Your task to perform on an android device: set the timer Image 0: 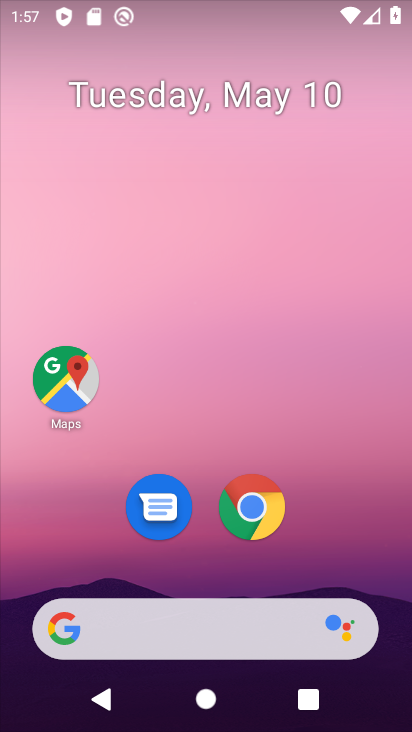
Step 0: drag from (356, 571) to (189, 84)
Your task to perform on an android device: set the timer Image 1: 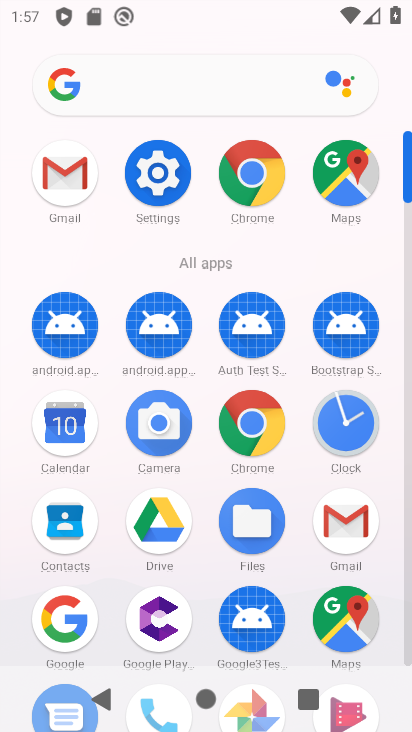
Step 1: click (341, 408)
Your task to perform on an android device: set the timer Image 2: 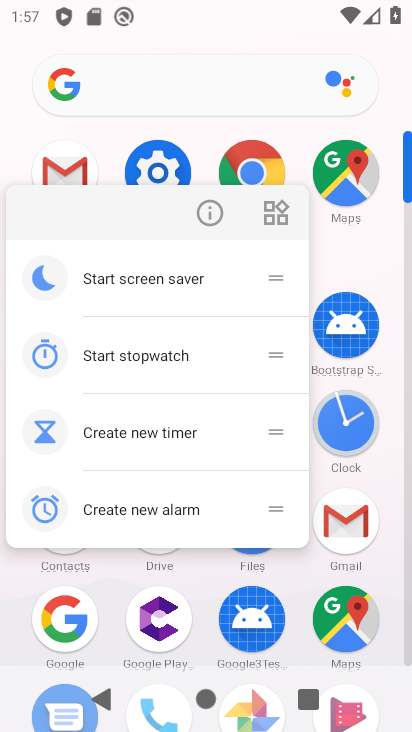
Step 2: click (341, 420)
Your task to perform on an android device: set the timer Image 3: 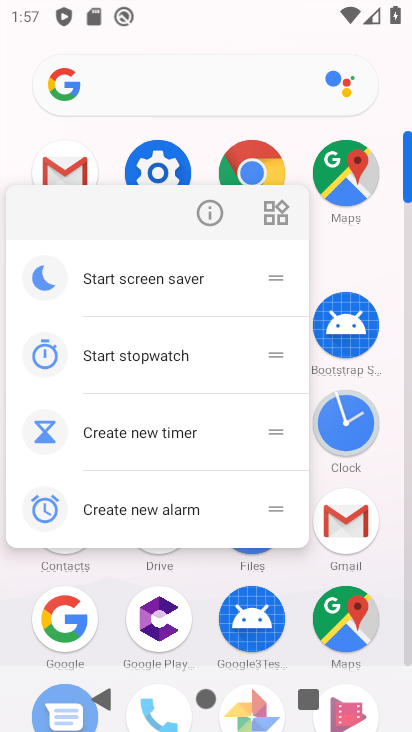
Step 3: click (340, 420)
Your task to perform on an android device: set the timer Image 4: 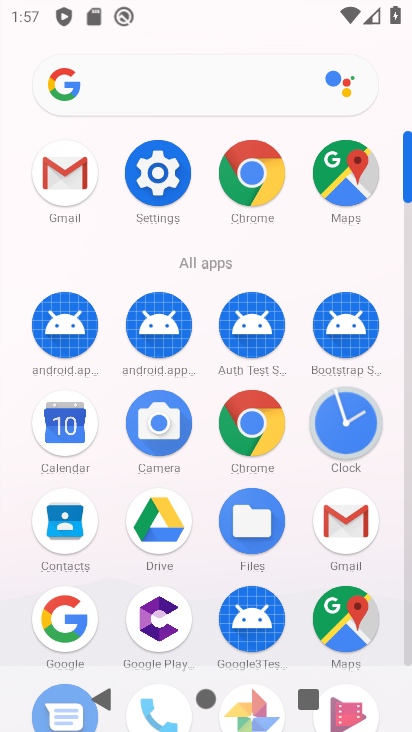
Step 4: click (340, 420)
Your task to perform on an android device: set the timer Image 5: 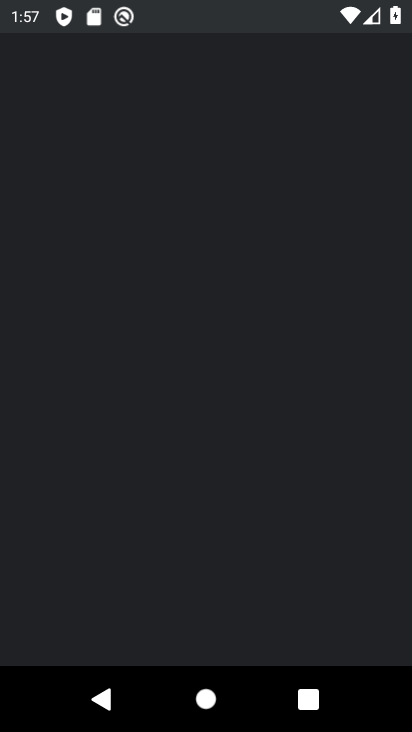
Step 5: click (339, 419)
Your task to perform on an android device: set the timer Image 6: 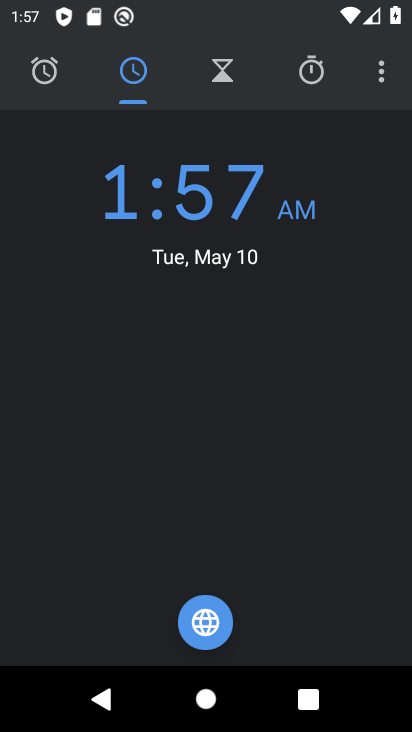
Step 6: click (311, 78)
Your task to perform on an android device: set the timer Image 7: 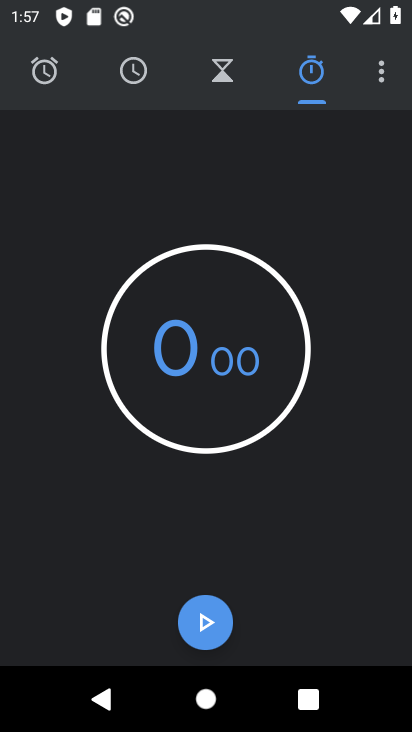
Step 7: click (217, 87)
Your task to perform on an android device: set the timer Image 8: 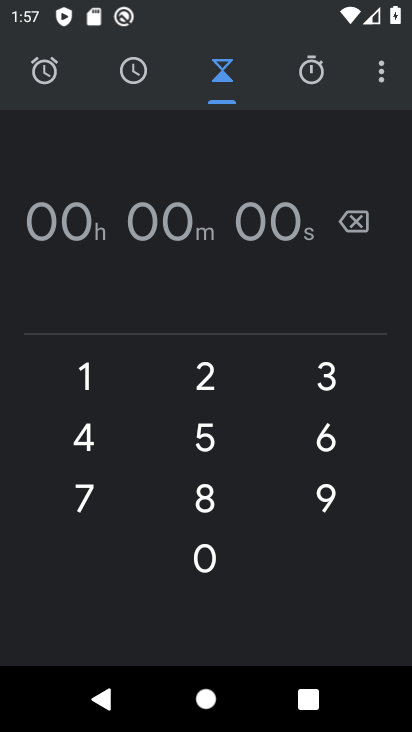
Step 8: click (199, 496)
Your task to perform on an android device: set the timer Image 9: 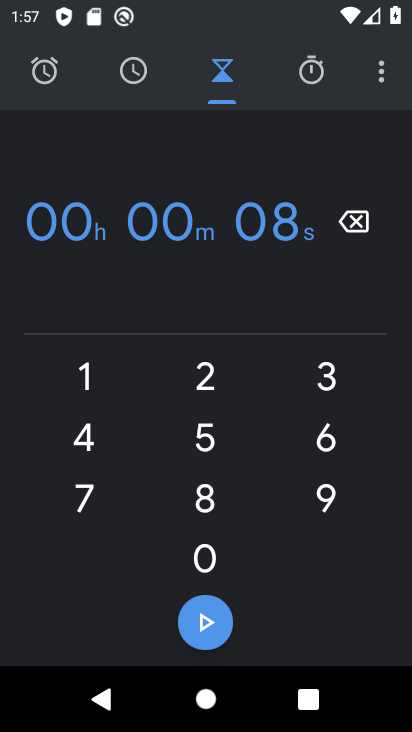
Step 9: click (205, 621)
Your task to perform on an android device: set the timer Image 10: 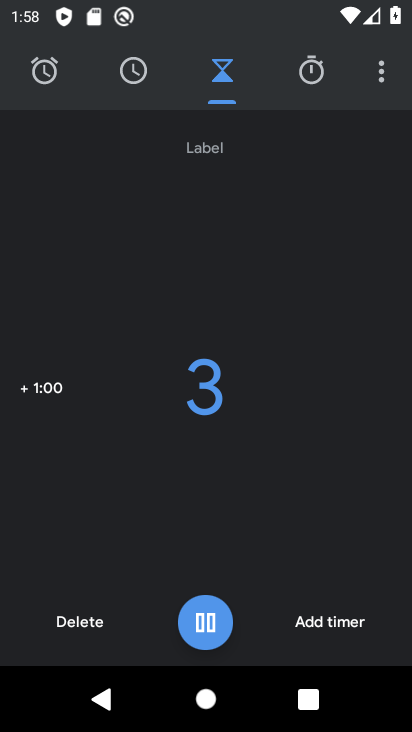
Step 10: click (202, 616)
Your task to perform on an android device: set the timer Image 11: 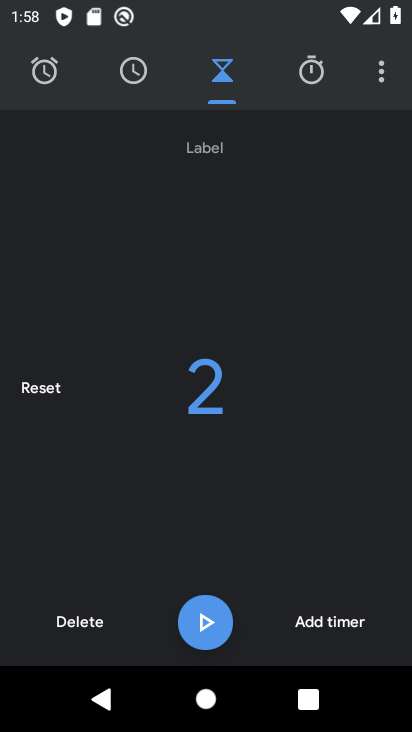
Step 11: click (326, 623)
Your task to perform on an android device: set the timer Image 12: 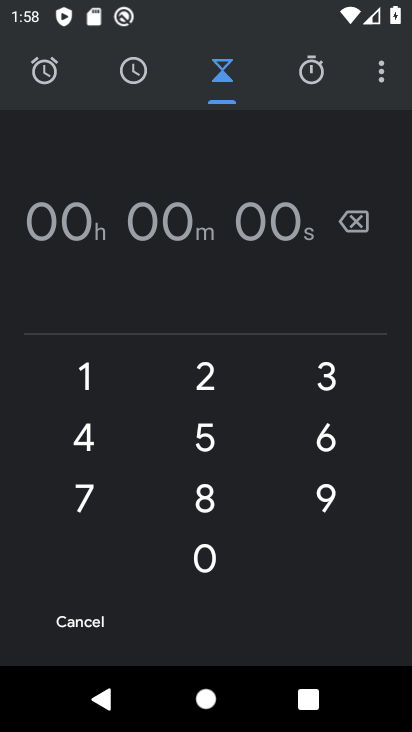
Step 12: task complete